Your task to perform on an android device: Go to display settings Image 0: 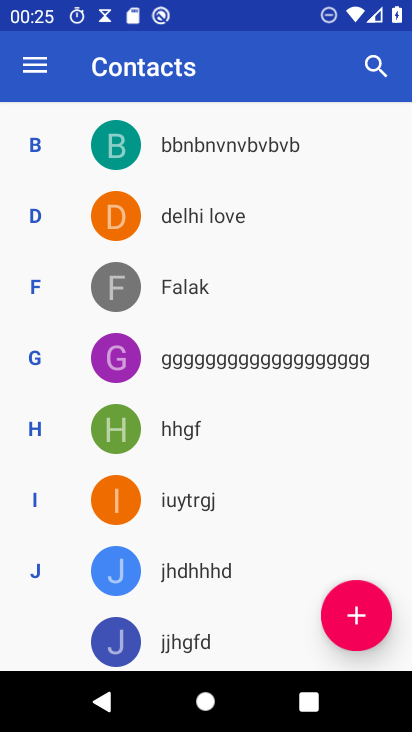
Step 0: press home button
Your task to perform on an android device: Go to display settings Image 1: 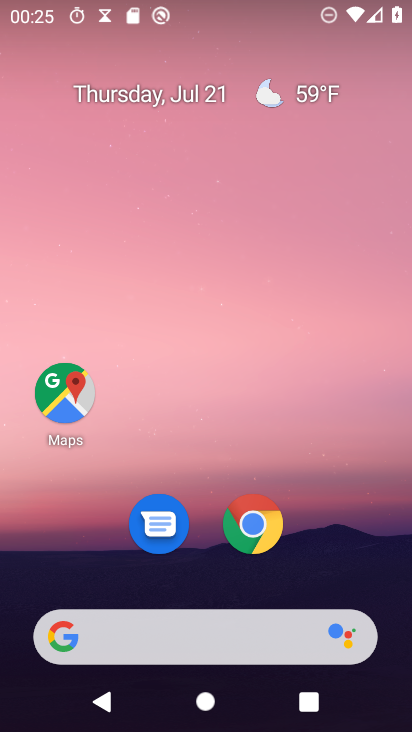
Step 1: drag from (227, 627) to (261, 160)
Your task to perform on an android device: Go to display settings Image 2: 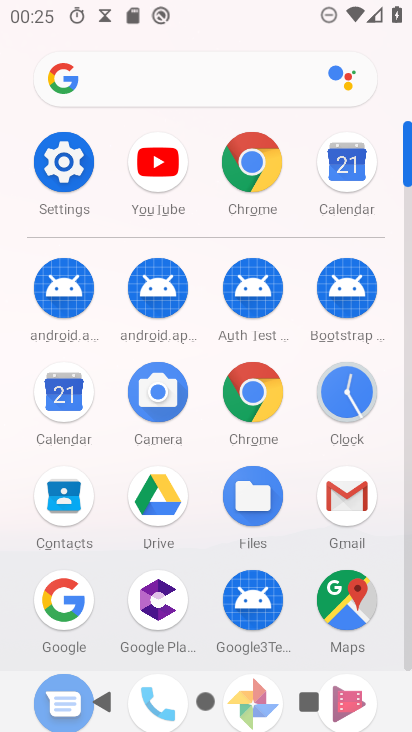
Step 2: click (69, 165)
Your task to perform on an android device: Go to display settings Image 3: 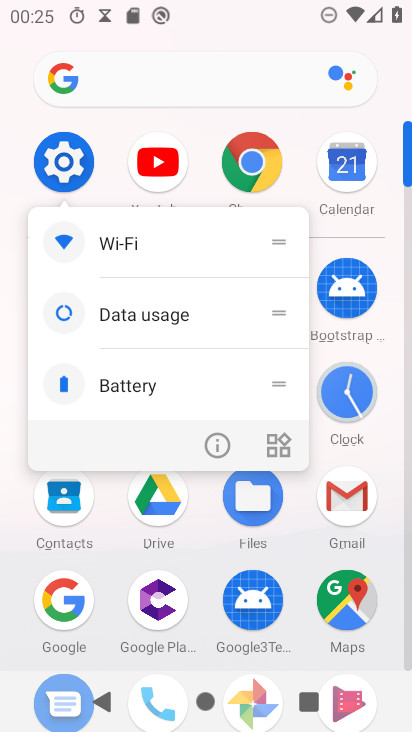
Step 3: click (55, 166)
Your task to perform on an android device: Go to display settings Image 4: 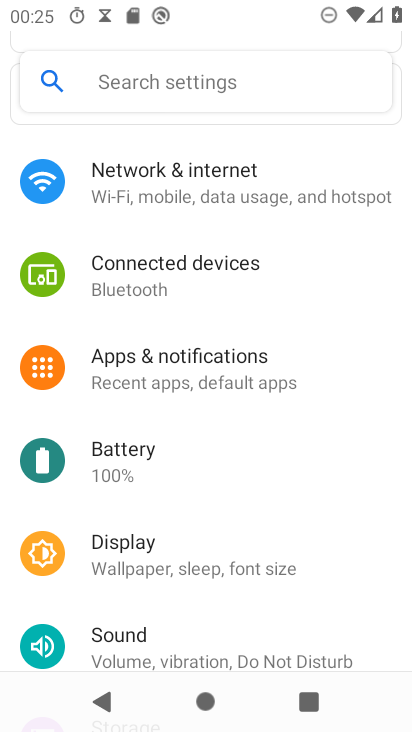
Step 4: click (180, 554)
Your task to perform on an android device: Go to display settings Image 5: 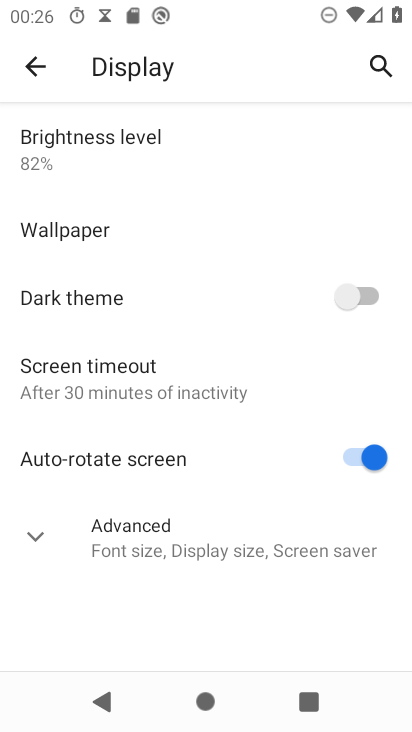
Step 5: task complete